Your task to perform on an android device: turn off location Image 0: 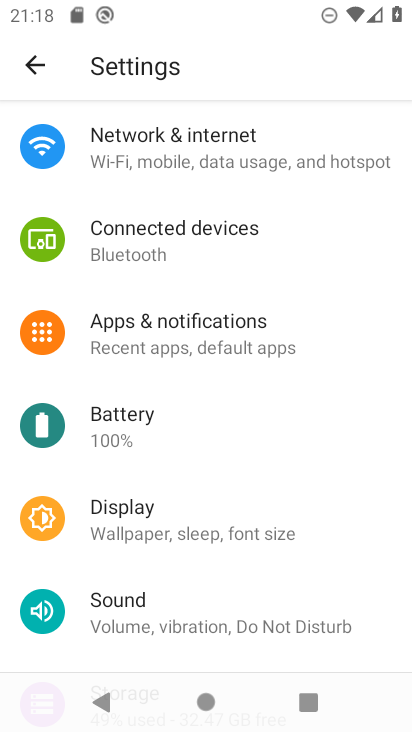
Step 0: drag from (120, 564) to (204, 108)
Your task to perform on an android device: turn off location Image 1: 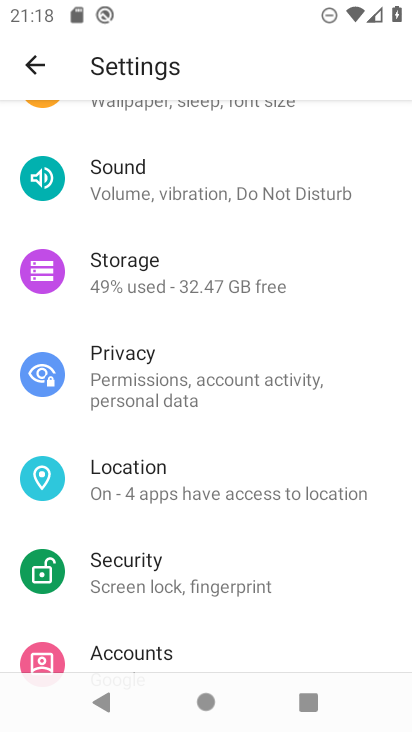
Step 1: click (182, 499)
Your task to perform on an android device: turn off location Image 2: 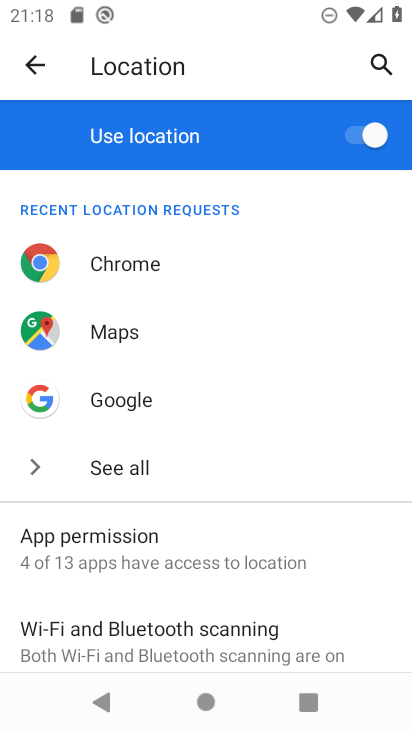
Step 2: click (362, 143)
Your task to perform on an android device: turn off location Image 3: 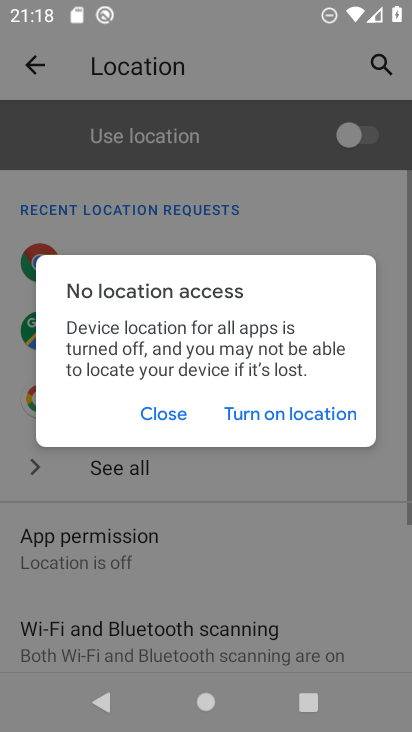
Step 3: task complete